Your task to perform on an android device: Go to calendar. Show me events next week Image 0: 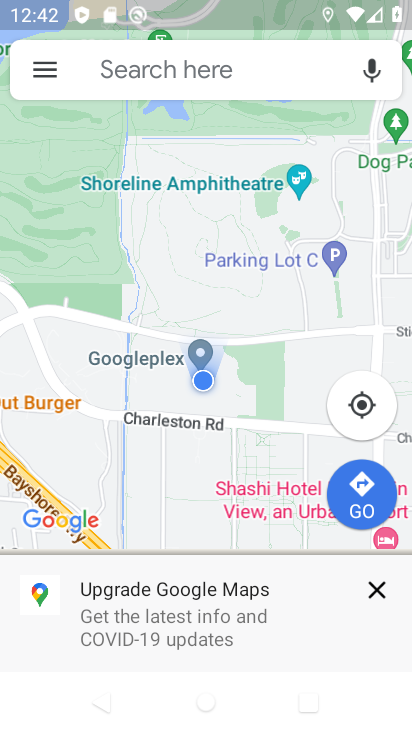
Step 0: drag from (141, 433) to (146, 240)
Your task to perform on an android device: Go to calendar. Show me events next week Image 1: 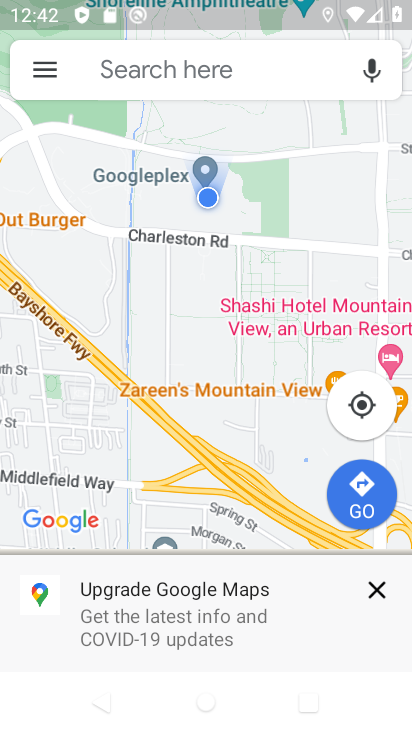
Step 1: press home button
Your task to perform on an android device: Go to calendar. Show me events next week Image 2: 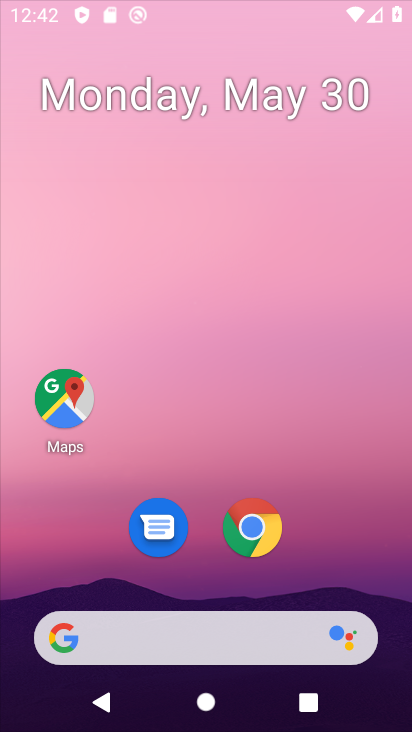
Step 2: drag from (181, 522) to (175, 215)
Your task to perform on an android device: Go to calendar. Show me events next week Image 3: 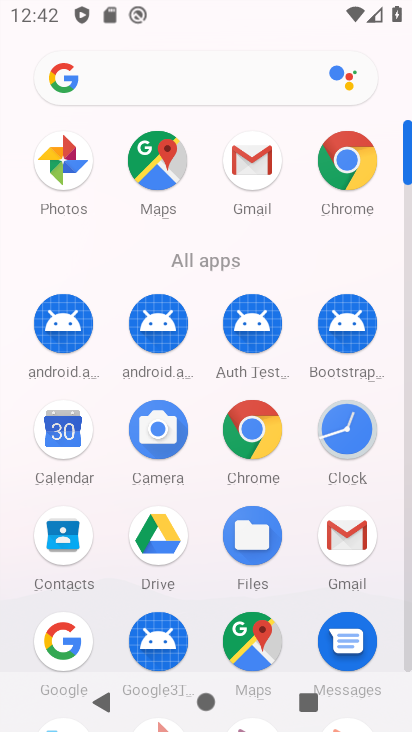
Step 3: click (65, 426)
Your task to perform on an android device: Go to calendar. Show me events next week Image 4: 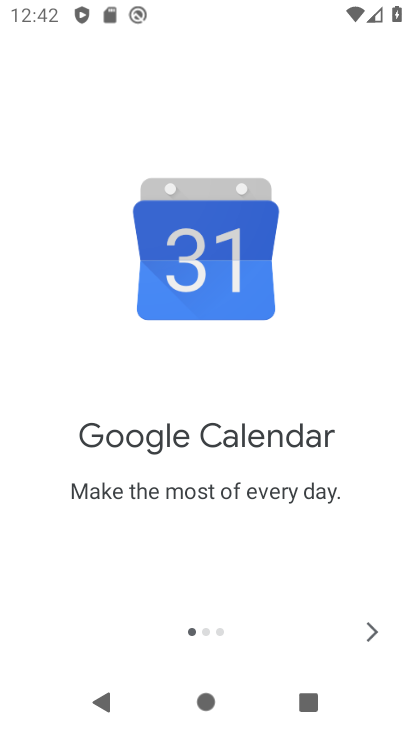
Step 4: click (377, 625)
Your task to perform on an android device: Go to calendar. Show me events next week Image 5: 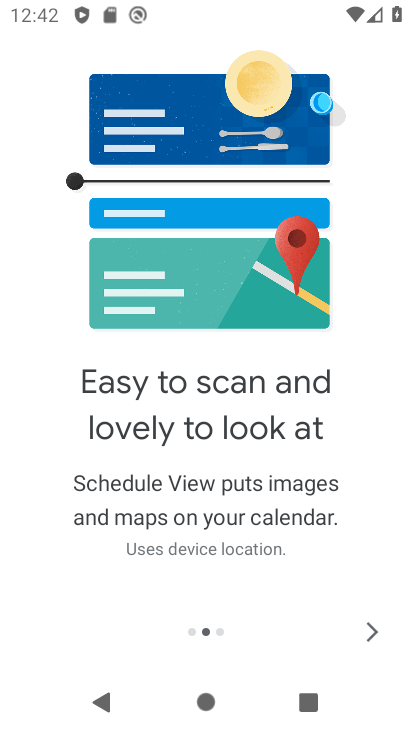
Step 5: click (363, 618)
Your task to perform on an android device: Go to calendar. Show me events next week Image 6: 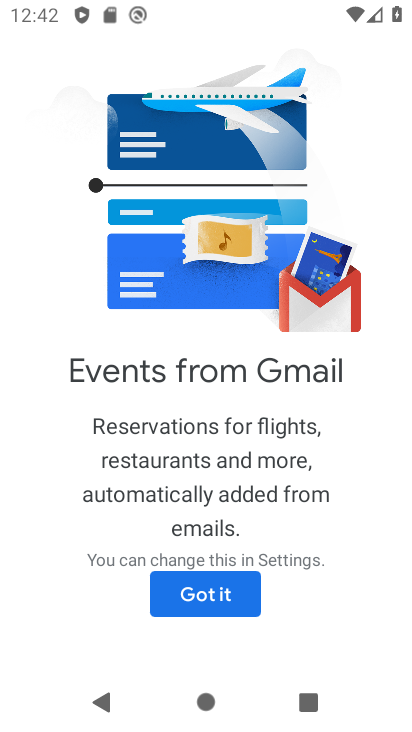
Step 6: click (223, 606)
Your task to perform on an android device: Go to calendar. Show me events next week Image 7: 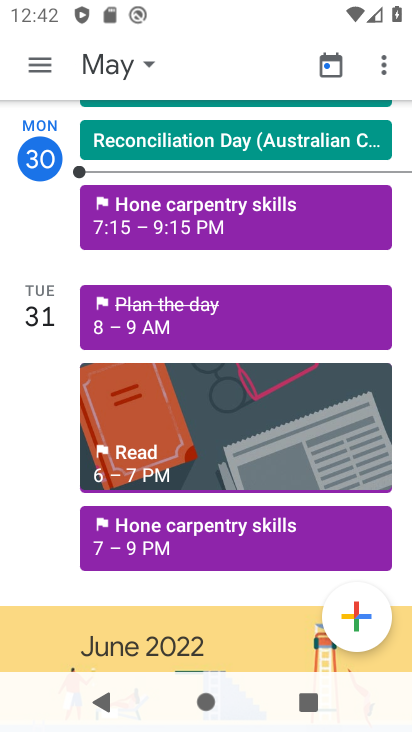
Step 7: drag from (206, 501) to (264, 227)
Your task to perform on an android device: Go to calendar. Show me events next week Image 8: 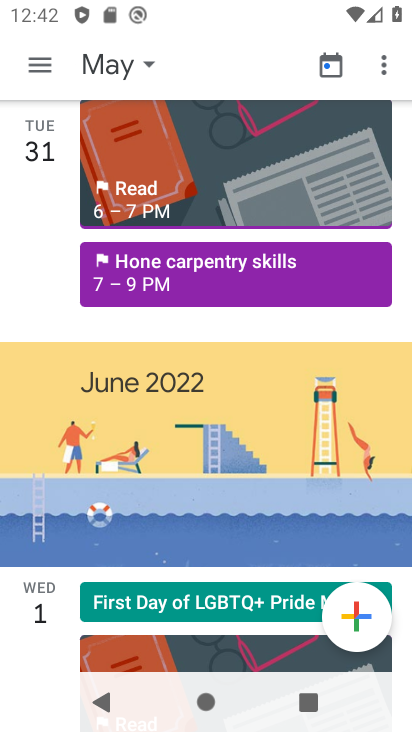
Step 8: click (136, 78)
Your task to perform on an android device: Go to calendar. Show me events next week Image 9: 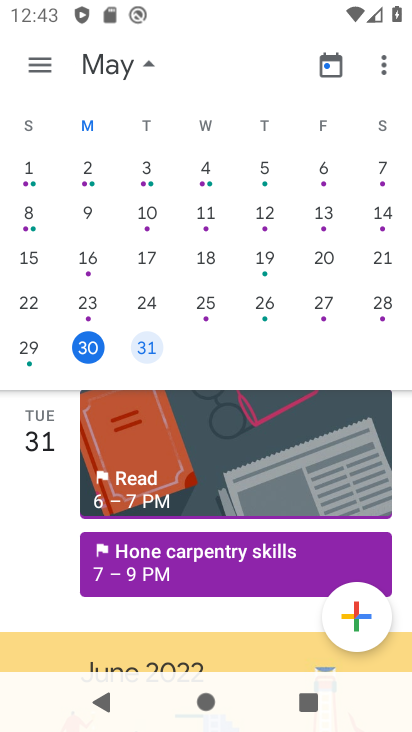
Step 9: drag from (370, 221) to (5, 225)
Your task to perform on an android device: Go to calendar. Show me events next week Image 10: 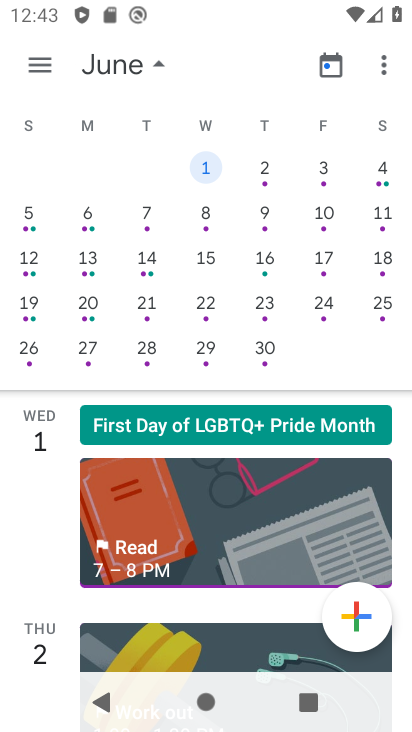
Step 10: click (260, 164)
Your task to perform on an android device: Go to calendar. Show me events next week Image 11: 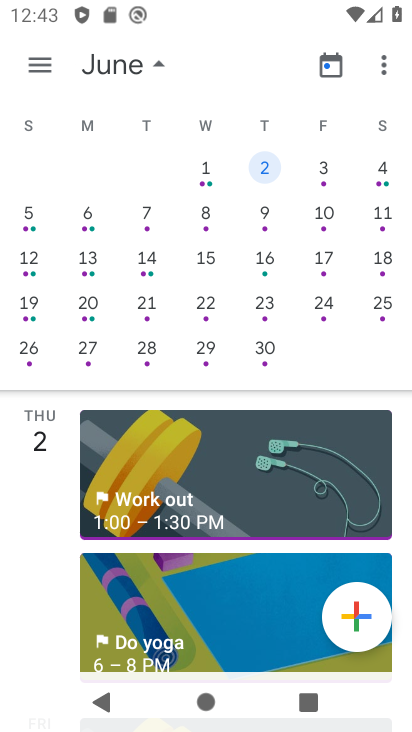
Step 11: task complete